Your task to perform on an android device: Open Google Chrome and open the bookmarks view Image 0: 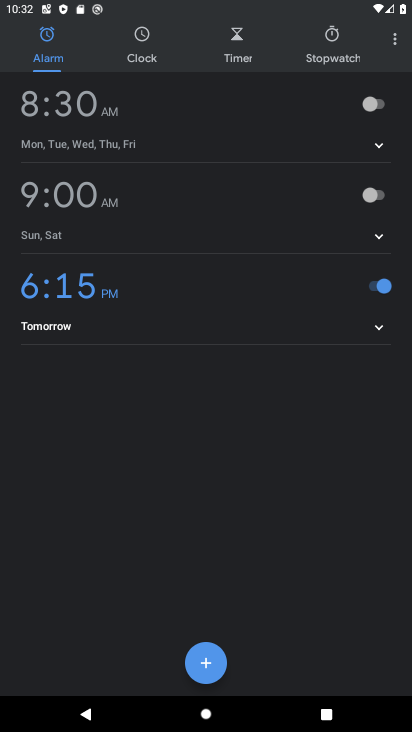
Step 0: press back button
Your task to perform on an android device: Open Google Chrome and open the bookmarks view Image 1: 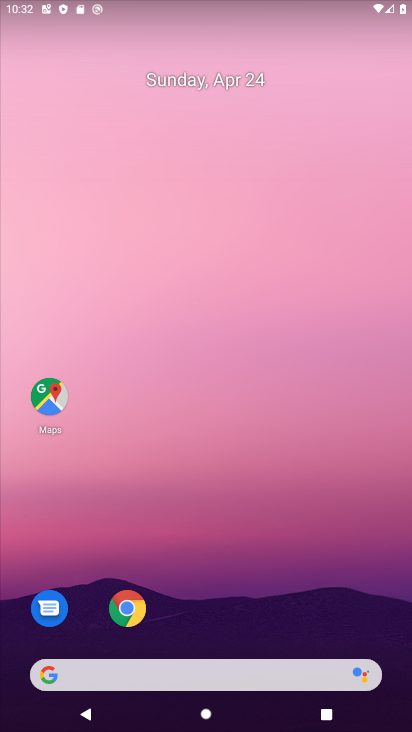
Step 1: drag from (257, 523) to (400, 377)
Your task to perform on an android device: Open Google Chrome and open the bookmarks view Image 2: 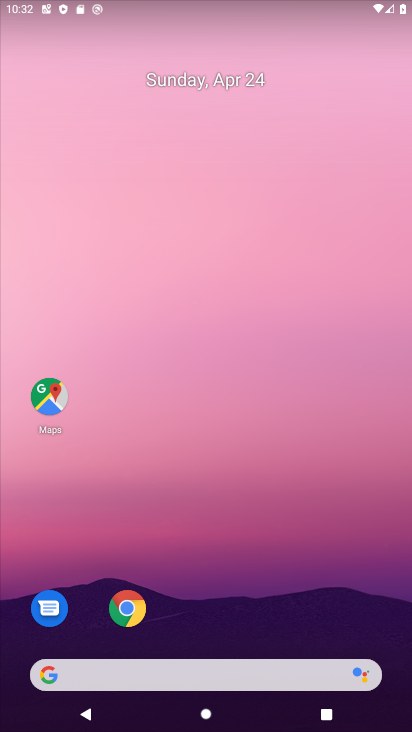
Step 2: drag from (205, 603) to (193, 14)
Your task to perform on an android device: Open Google Chrome and open the bookmarks view Image 3: 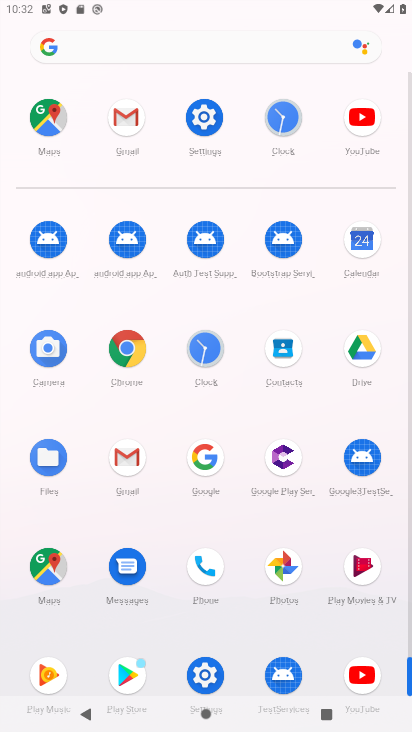
Step 3: drag from (5, 525) to (10, 236)
Your task to perform on an android device: Open Google Chrome and open the bookmarks view Image 4: 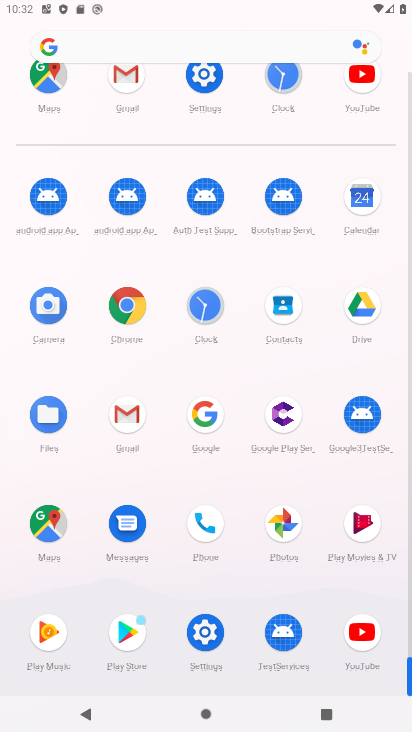
Step 4: click (127, 306)
Your task to perform on an android device: Open Google Chrome and open the bookmarks view Image 5: 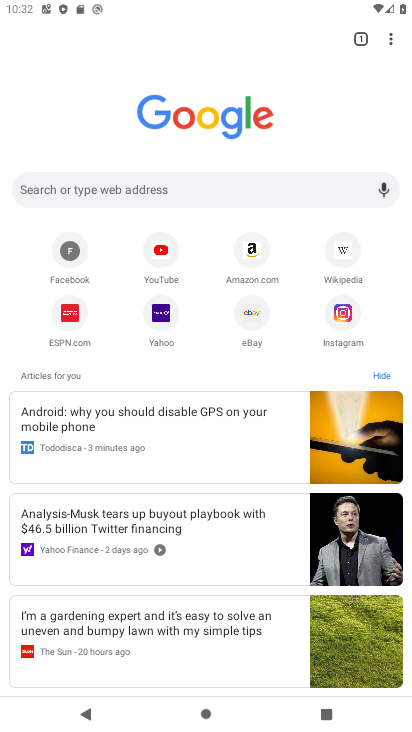
Step 5: click (393, 41)
Your task to perform on an android device: Open Google Chrome and open the bookmarks view Image 6: 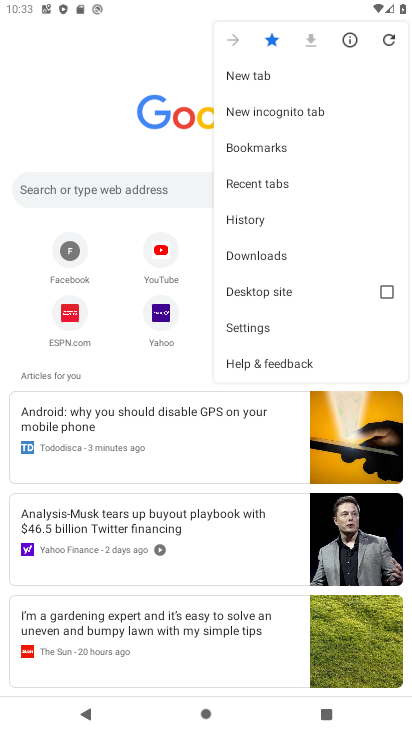
Step 6: click (277, 147)
Your task to perform on an android device: Open Google Chrome and open the bookmarks view Image 7: 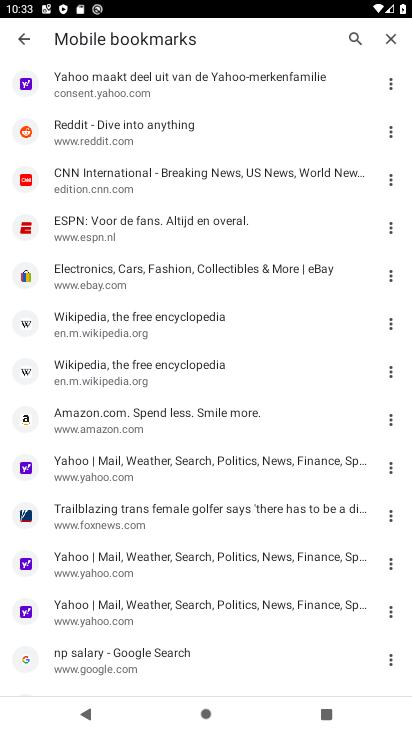
Step 7: task complete